Your task to perform on an android device: turn off priority inbox in the gmail app Image 0: 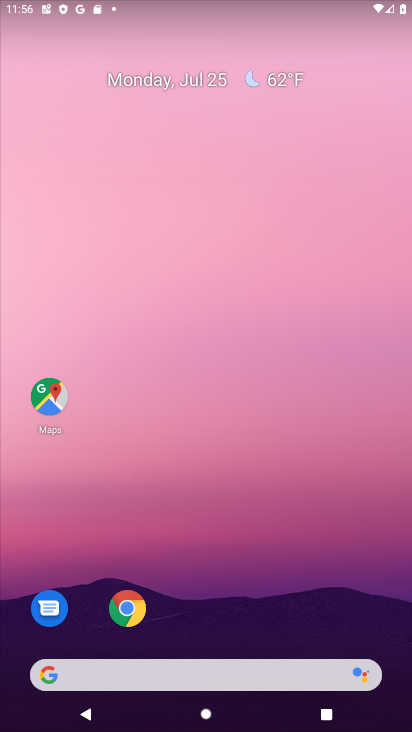
Step 0: drag from (264, 476) to (286, 50)
Your task to perform on an android device: turn off priority inbox in the gmail app Image 1: 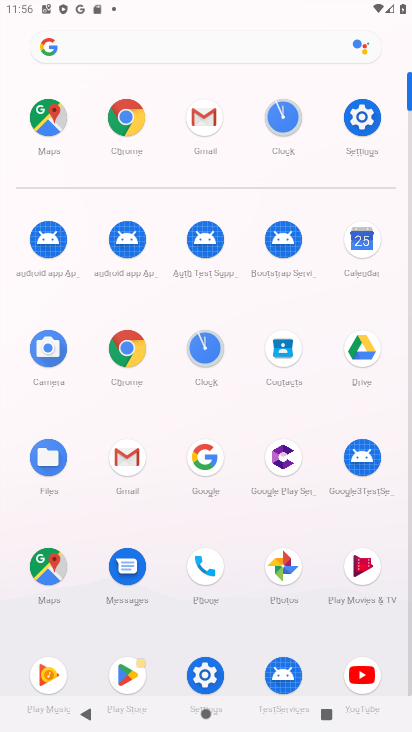
Step 1: click (125, 465)
Your task to perform on an android device: turn off priority inbox in the gmail app Image 2: 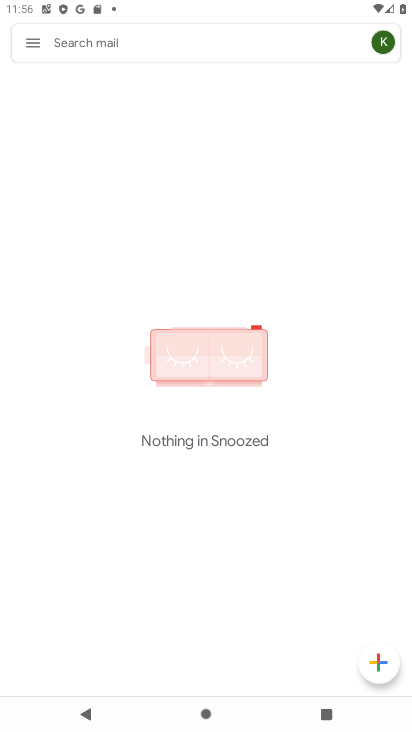
Step 2: task complete